Your task to perform on an android device: empty trash in google photos Image 0: 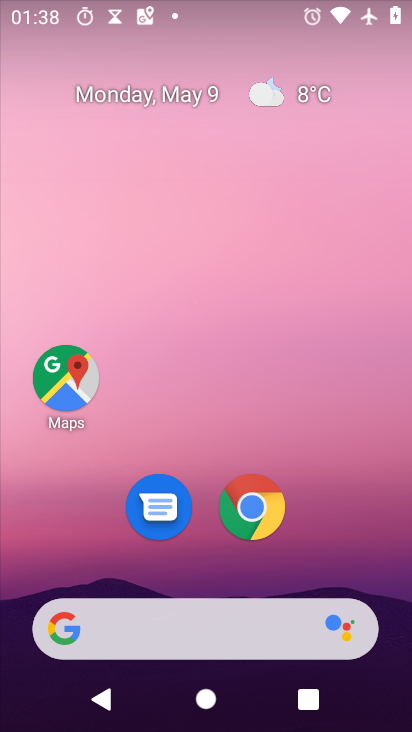
Step 0: drag from (226, 729) to (235, 175)
Your task to perform on an android device: empty trash in google photos Image 1: 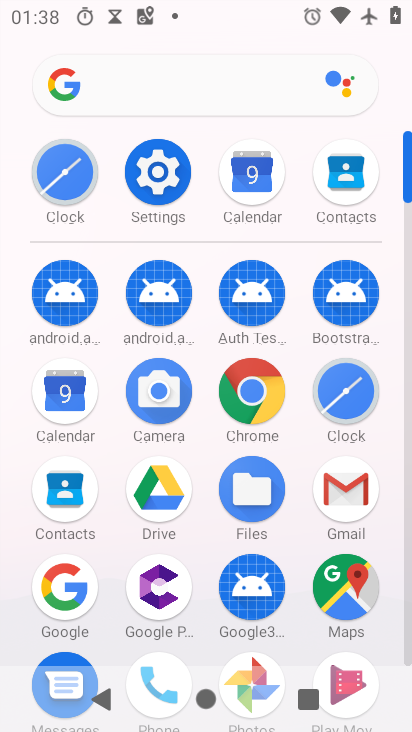
Step 1: click (244, 659)
Your task to perform on an android device: empty trash in google photos Image 2: 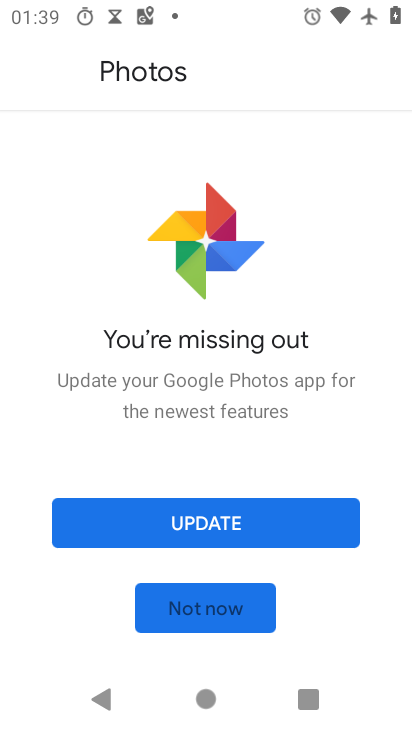
Step 2: task complete